Your task to perform on an android device: change notifications settings Image 0: 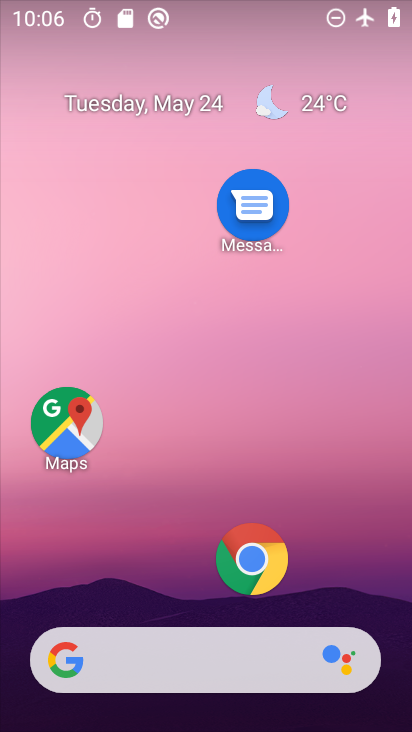
Step 0: drag from (164, 589) to (194, 170)
Your task to perform on an android device: change notifications settings Image 1: 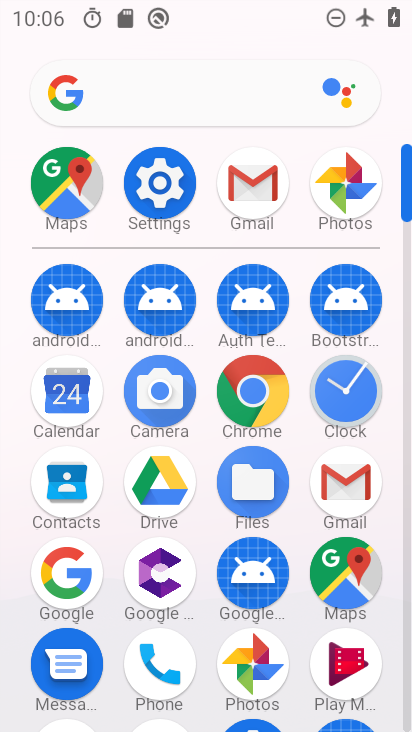
Step 1: click (160, 205)
Your task to perform on an android device: change notifications settings Image 2: 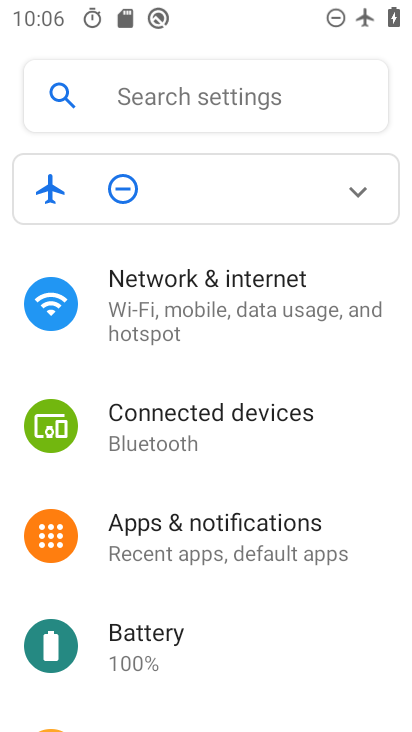
Step 2: click (233, 528)
Your task to perform on an android device: change notifications settings Image 3: 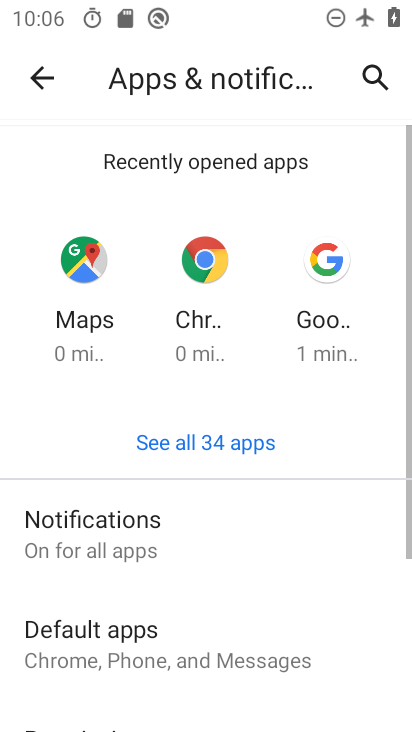
Step 3: click (233, 528)
Your task to perform on an android device: change notifications settings Image 4: 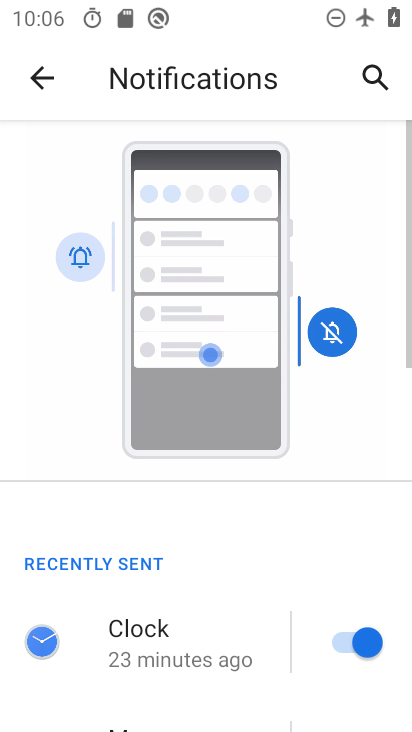
Step 4: drag from (271, 633) to (297, 129)
Your task to perform on an android device: change notifications settings Image 5: 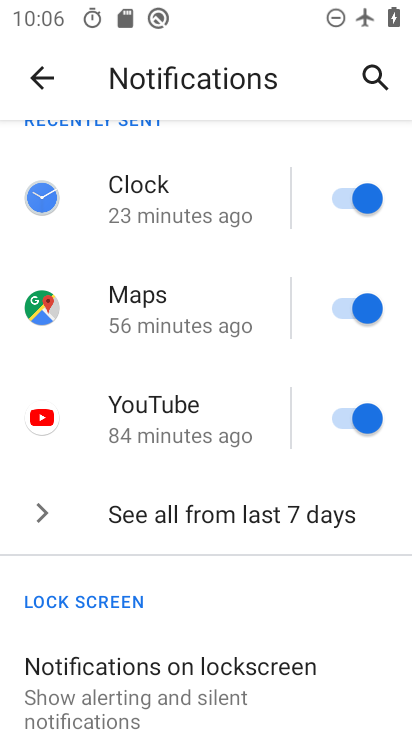
Step 5: click (232, 673)
Your task to perform on an android device: change notifications settings Image 6: 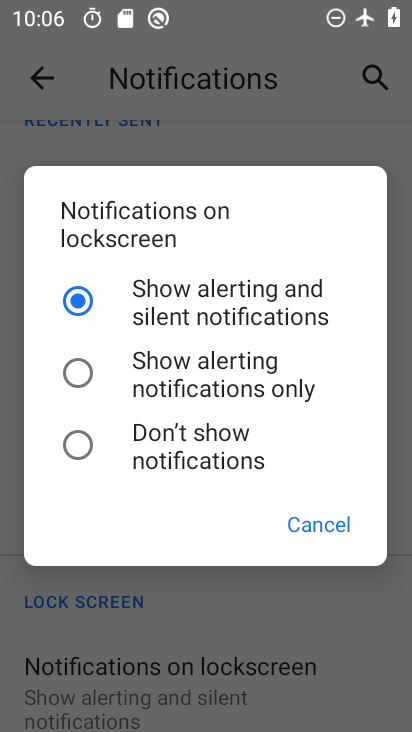
Step 6: click (120, 463)
Your task to perform on an android device: change notifications settings Image 7: 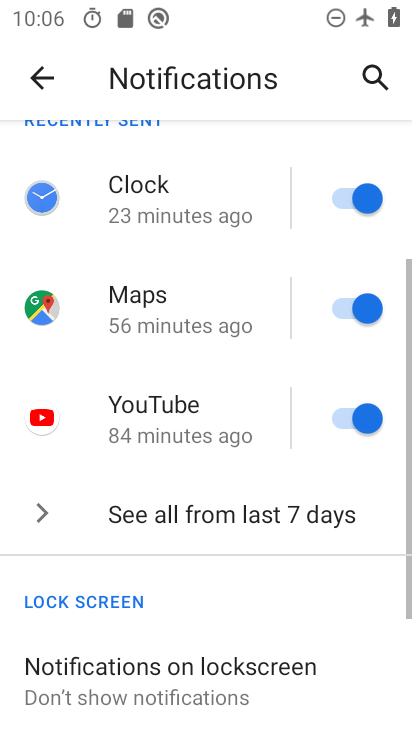
Step 7: task complete